Your task to perform on an android device: Open Google Maps and go to "Timeline" Image 0: 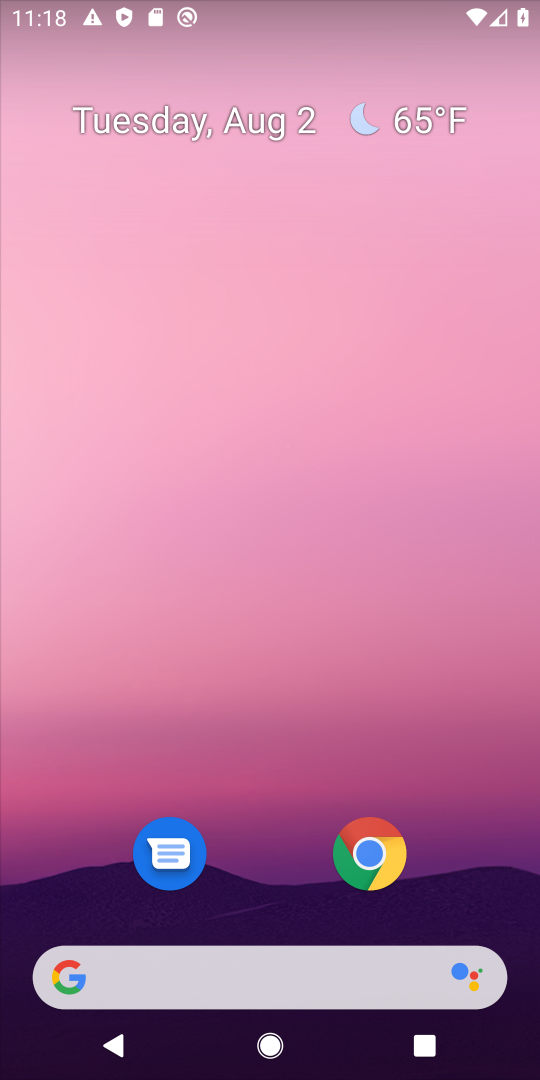
Step 0: press home button
Your task to perform on an android device: Open Google Maps and go to "Timeline" Image 1: 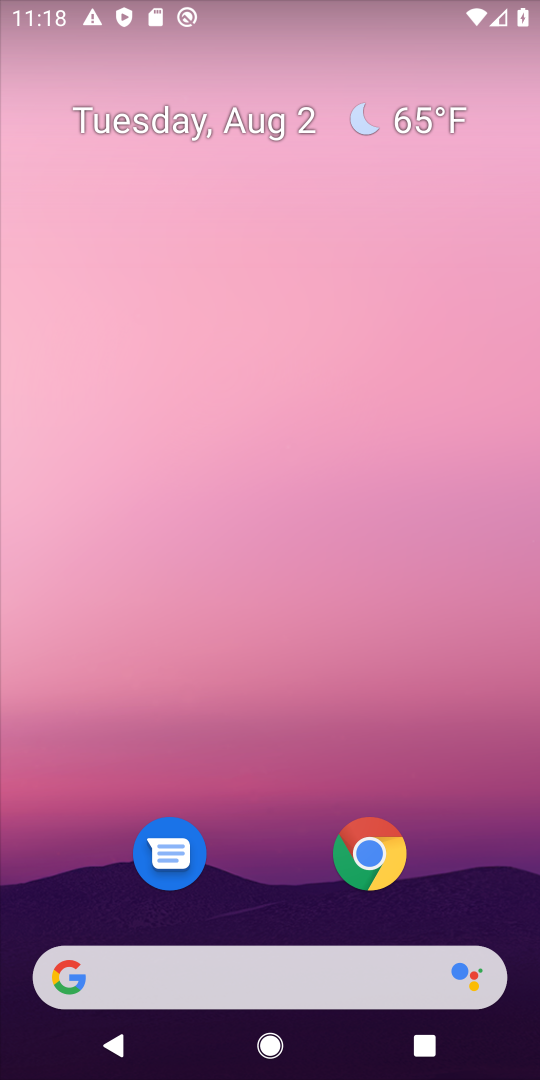
Step 1: click (299, 22)
Your task to perform on an android device: Open Google Maps and go to "Timeline" Image 2: 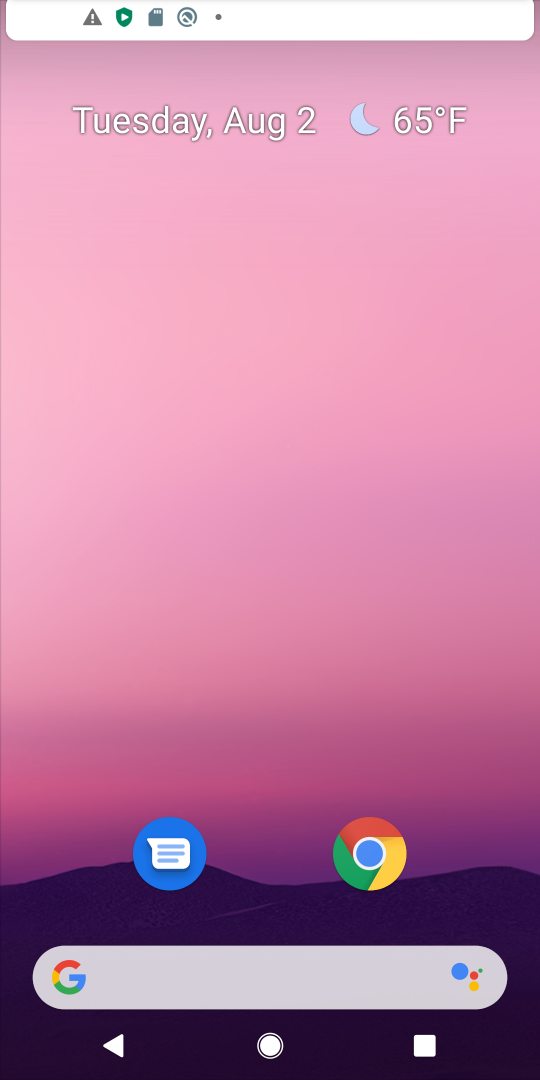
Step 2: drag from (292, 836) to (494, 306)
Your task to perform on an android device: Open Google Maps and go to "Timeline" Image 3: 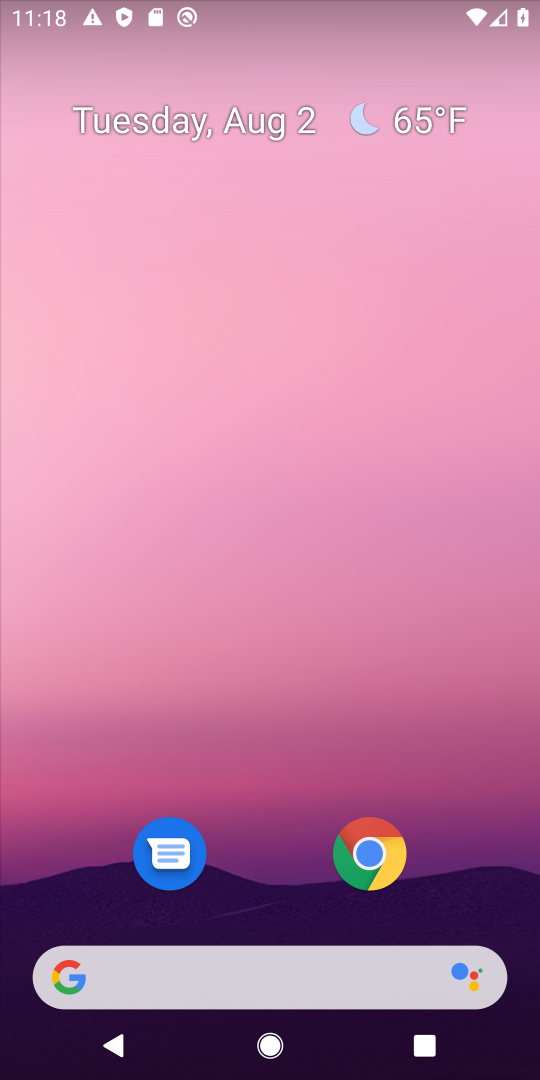
Step 3: drag from (299, 831) to (425, 302)
Your task to perform on an android device: Open Google Maps and go to "Timeline" Image 4: 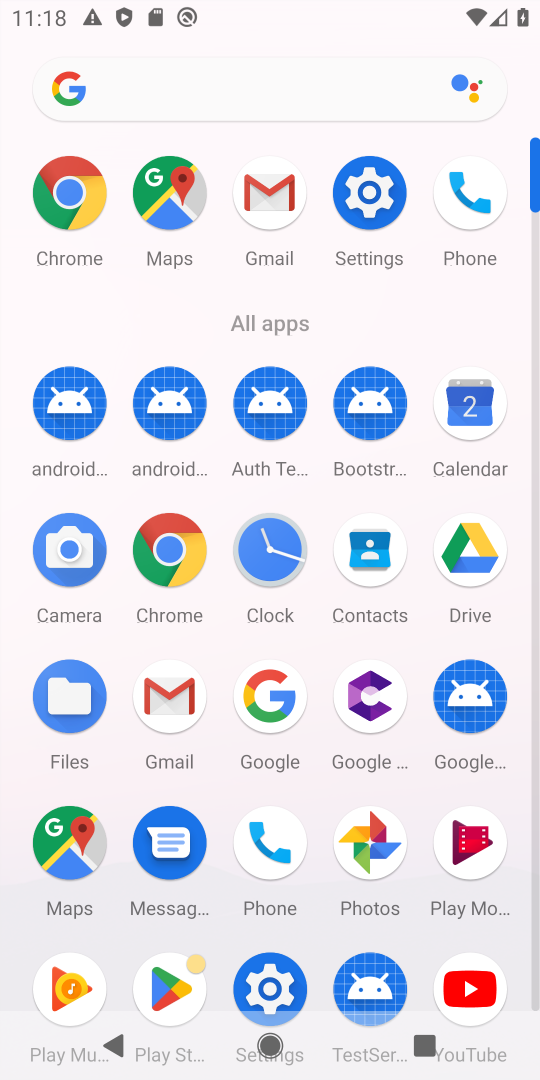
Step 4: click (25, 868)
Your task to perform on an android device: Open Google Maps and go to "Timeline" Image 5: 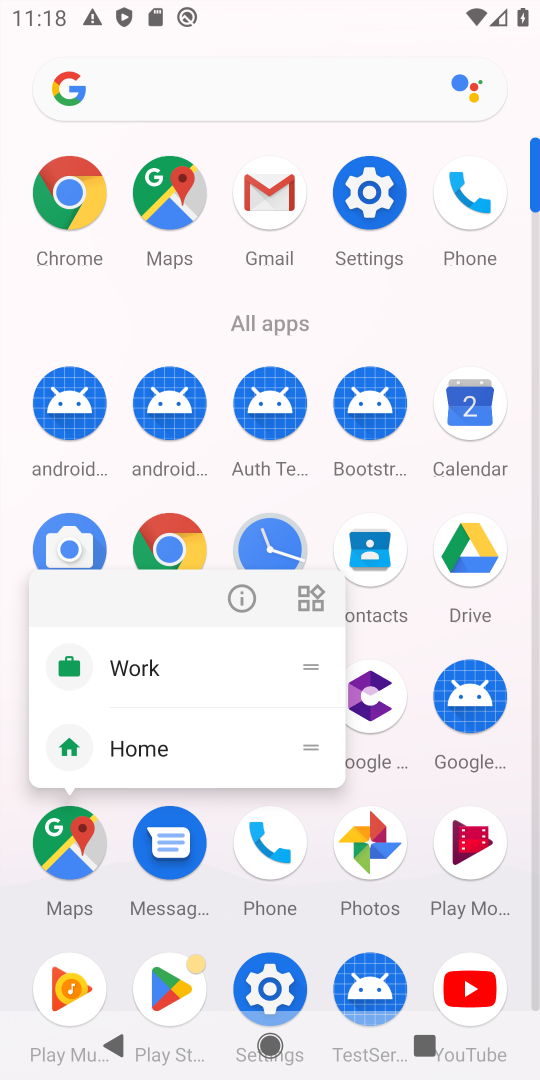
Step 5: click (78, 842)
Your task to perform on an android device: Open Google Maps and go to "Timeline" Image 6: 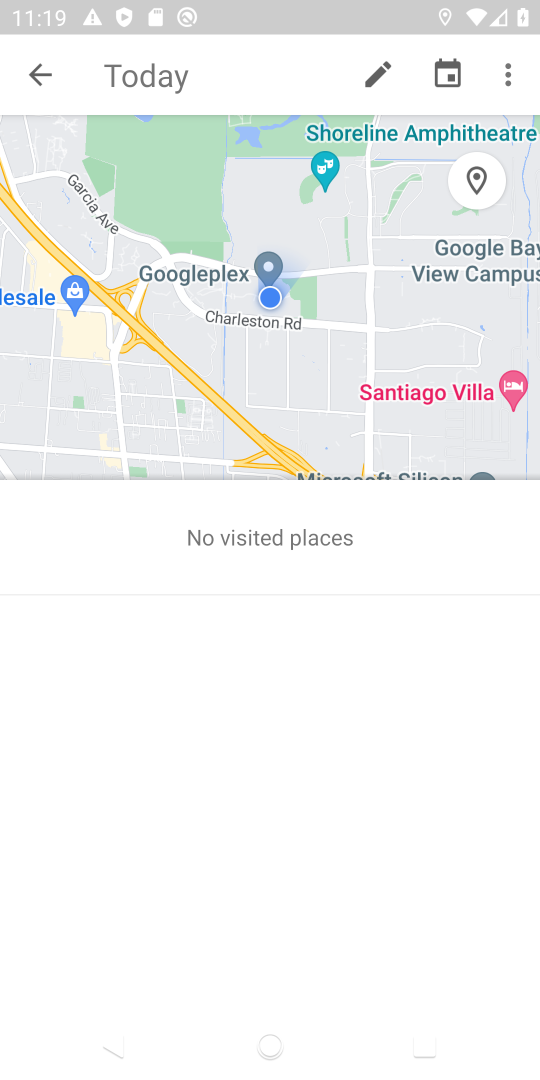
Step 6: task complete